Your task to perform on an android device: change the clock display to show seconds Image 0: 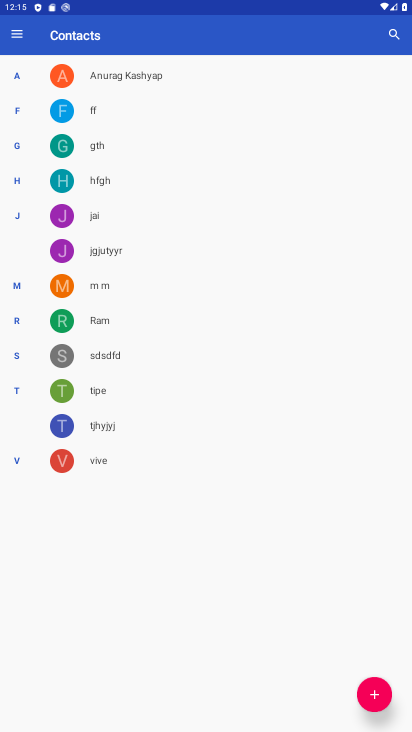
Step 0: press home button
Your task to perform on an android device: change the clock display to show seconds Image 1: 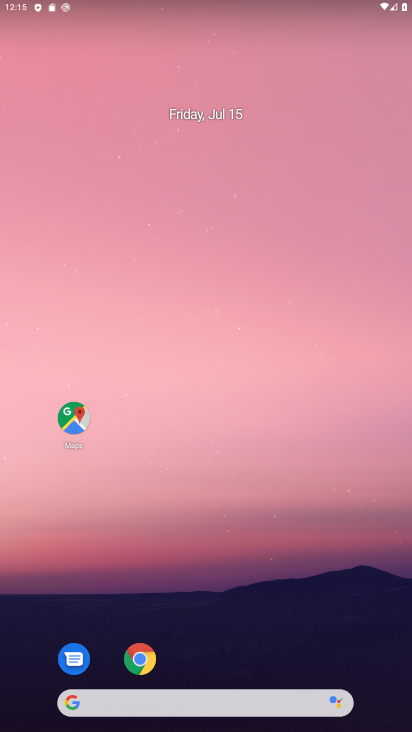
Step 1: drag from (222, 648) to (286, 190)
Your task to perform on an android device: change the clock display to show seconds Image 2: 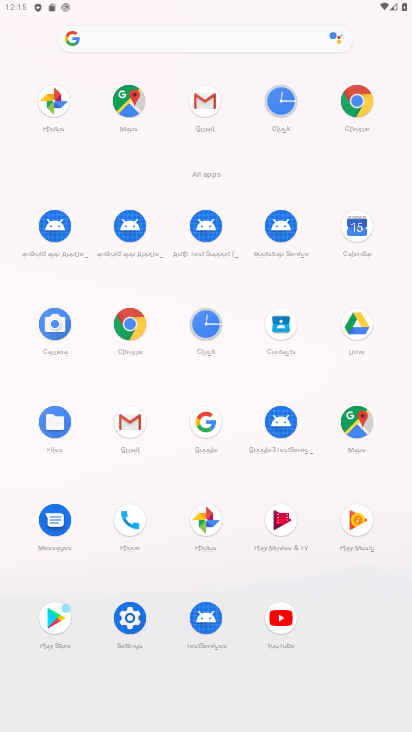
Step 2: click (202, 323)
Your task to perform on an android device: change the clock display to show seconds Image 3: 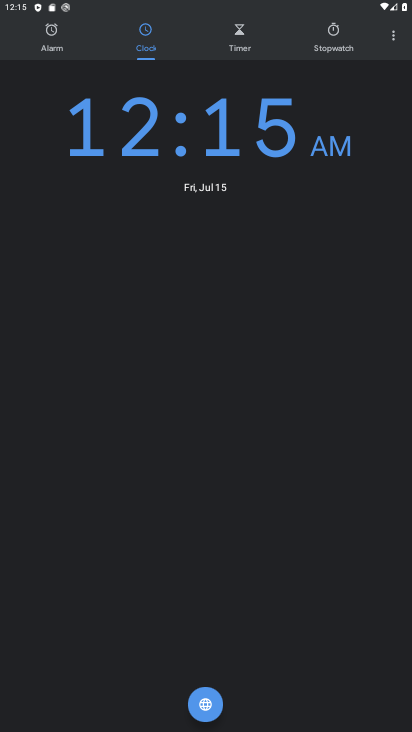
Step 3: click (389, 32)
Your task to perform on an android device: change the clock display to show seconds Image 4: 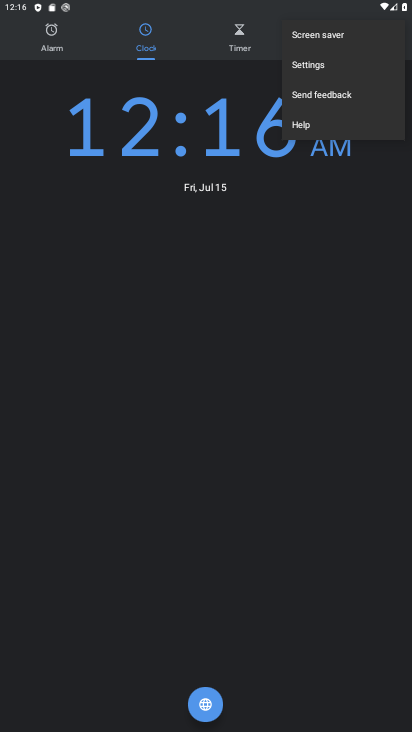
Step 4: click (324, 62)
Your task to perform on an android device: change the clock display to show seconds Image 5: 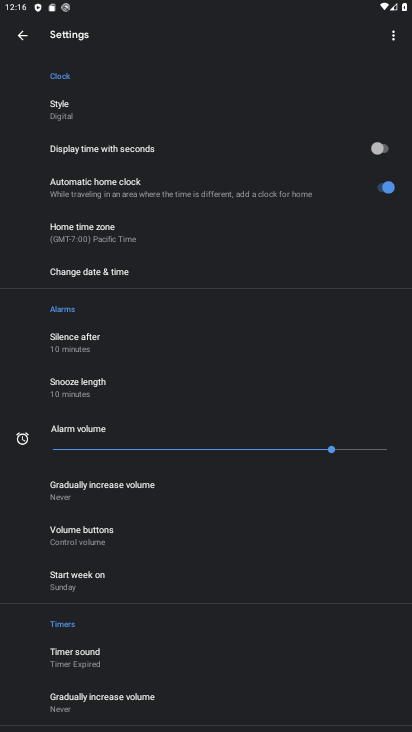
Step 5: click (387, 141)
Your task to perform on an android device: change the clock display to show seconds Image 6: 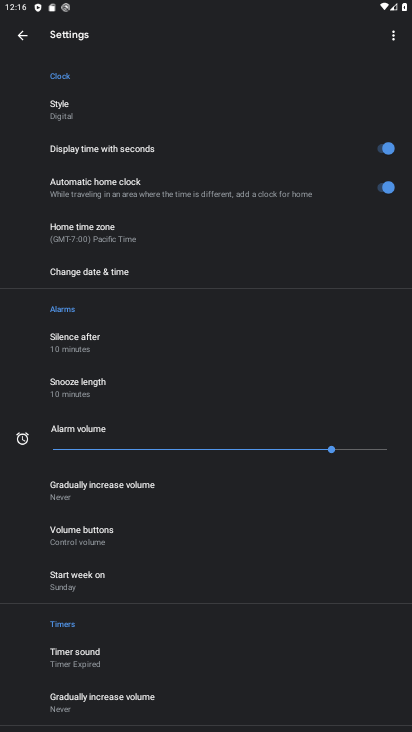
Step 6: task complete